Your task to perform on an android device: open app "Gboard" (install if not already installed) Image 0: 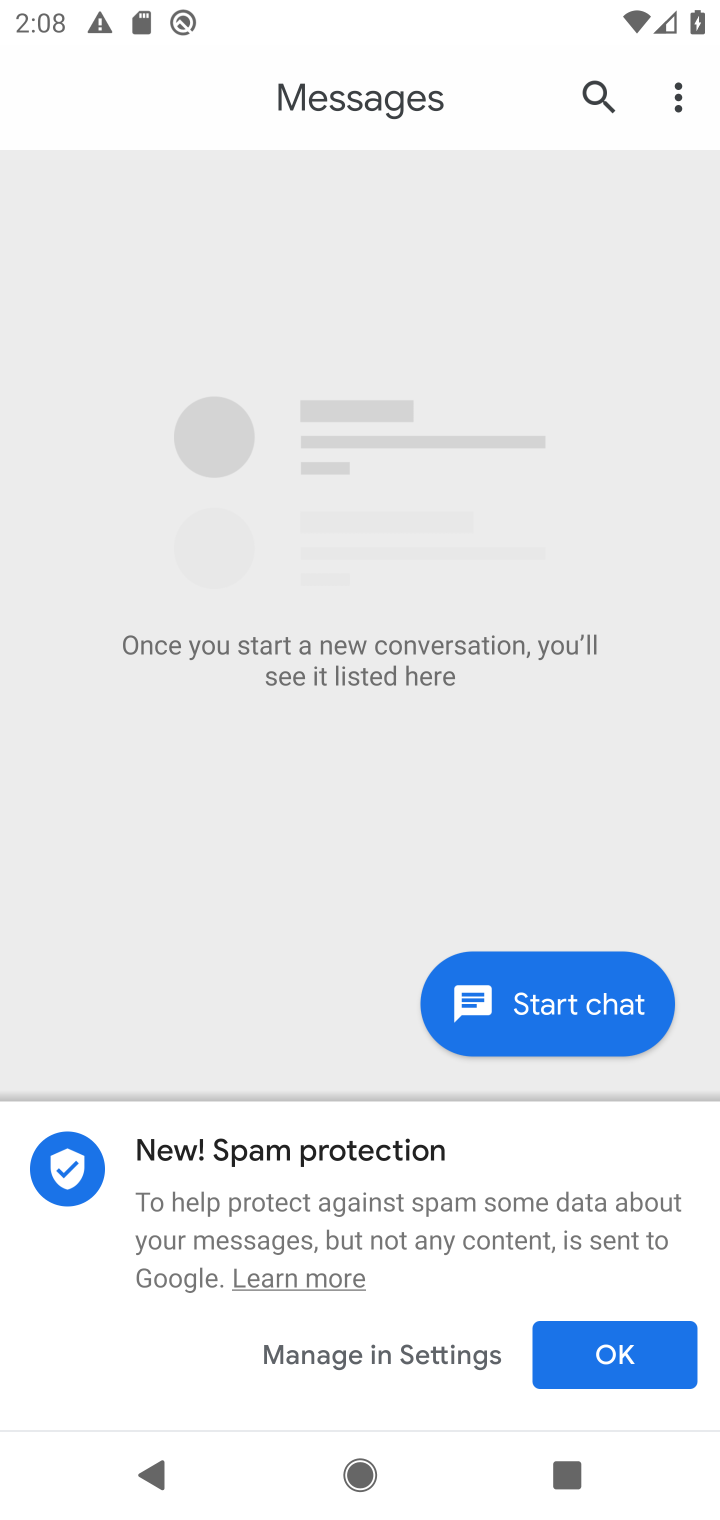
Step 0: press home button
Your task to perform on an android device: open app "Gboard" (install if not already installed) Image 1: 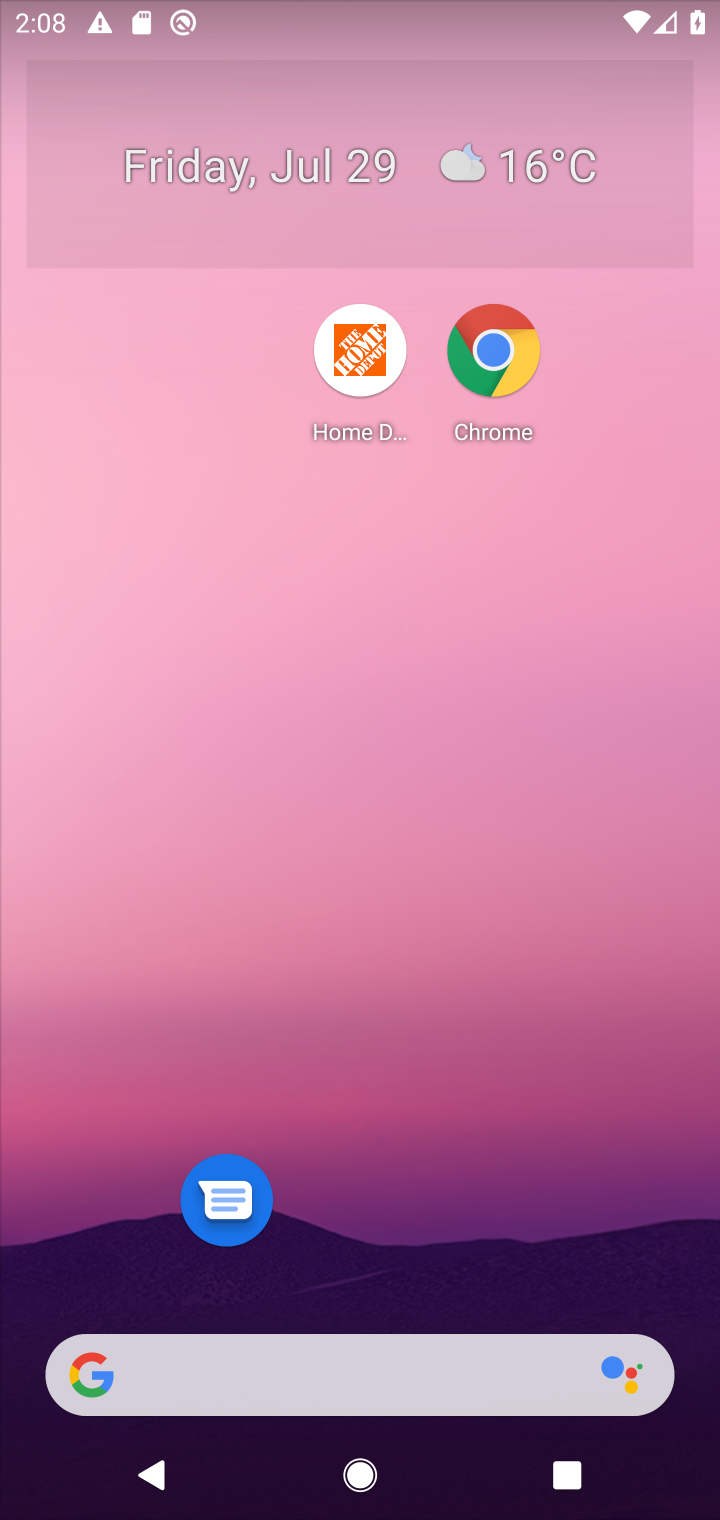
Step 1: drag from (468, 1223) to (508, 127)
Your task to perform on an android device: open app "Gboard" (install if not already installed) Image 2: 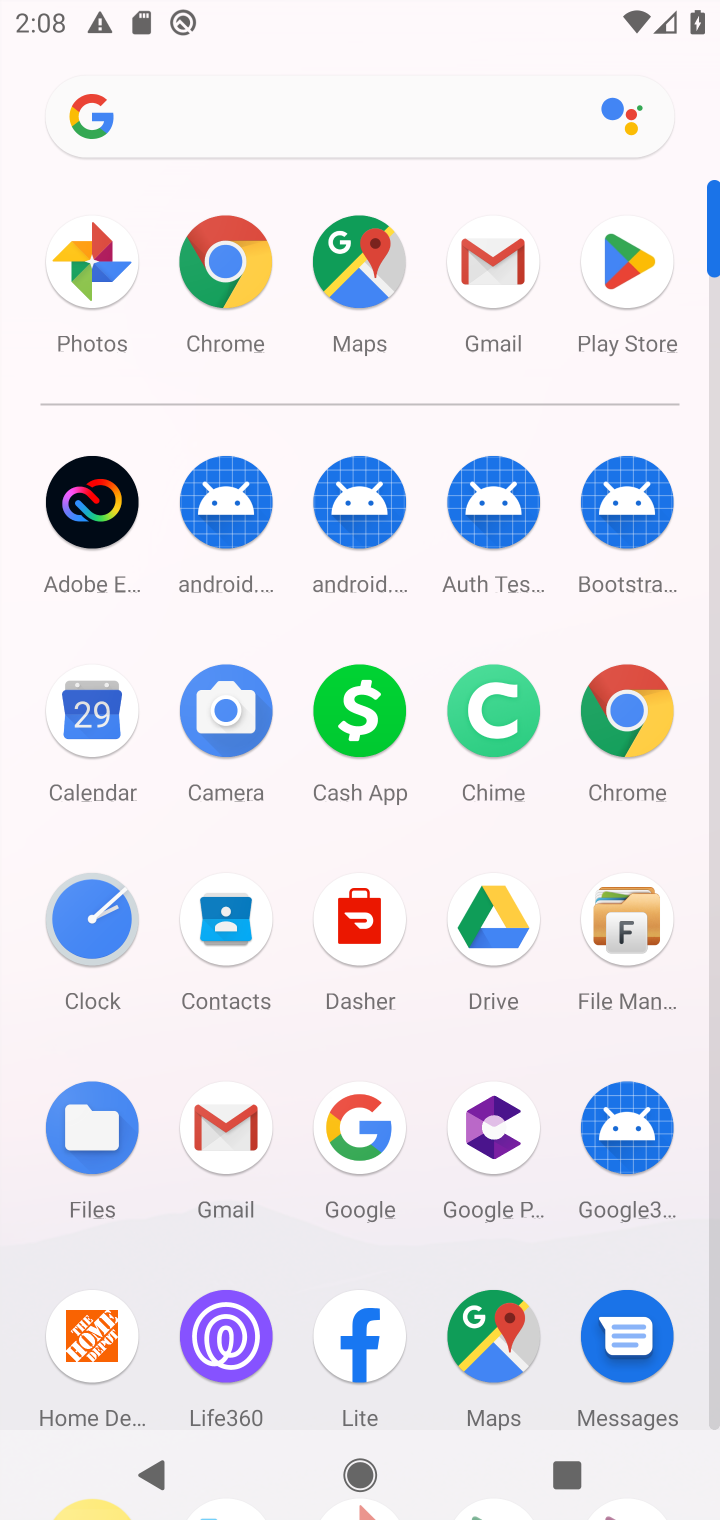
Step 2: click (614, 254)
Your task to perform on an android device: open app "Gboard" (install if not already installed) Image 3: 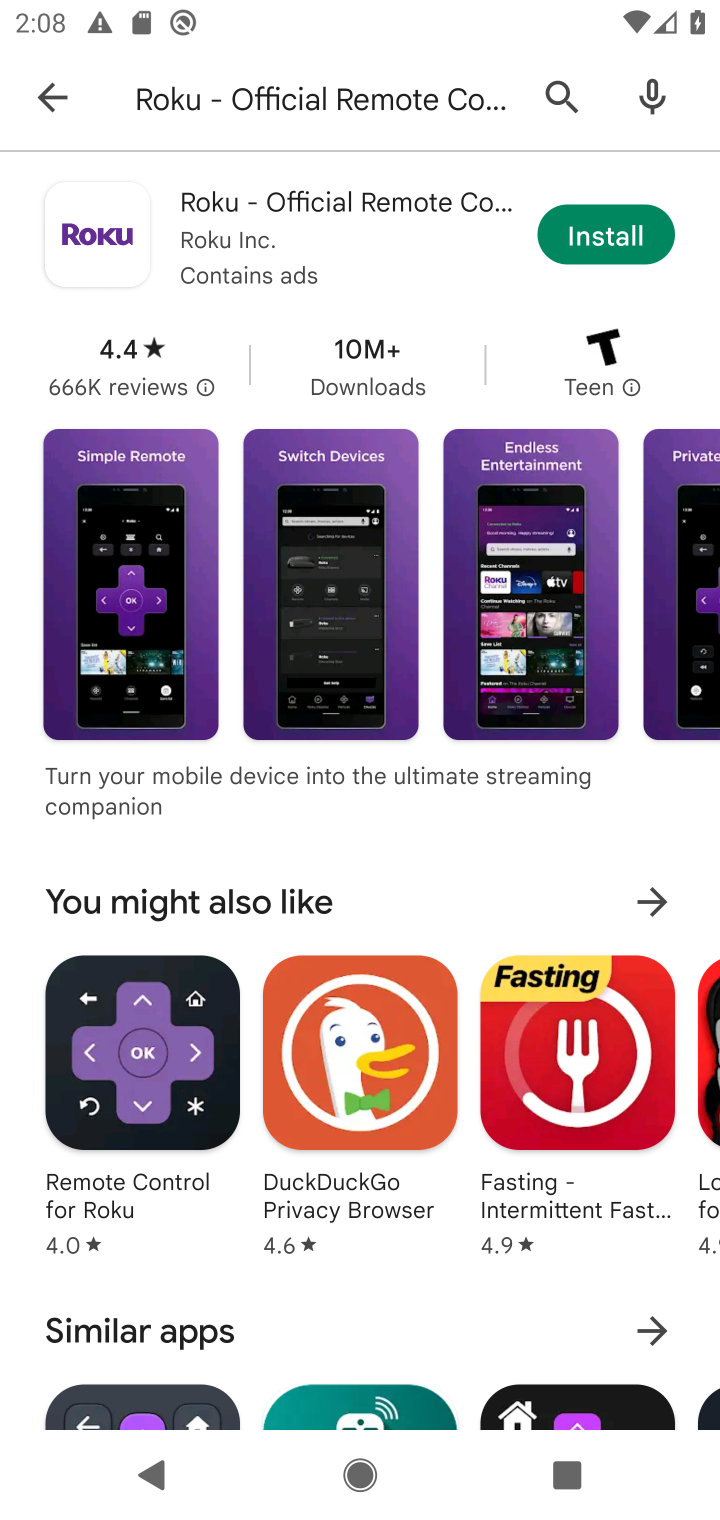
Step 3: click (409, 111)
Your task to perform on an android device: open app "Gboard" (install if not already installed) Image 4: 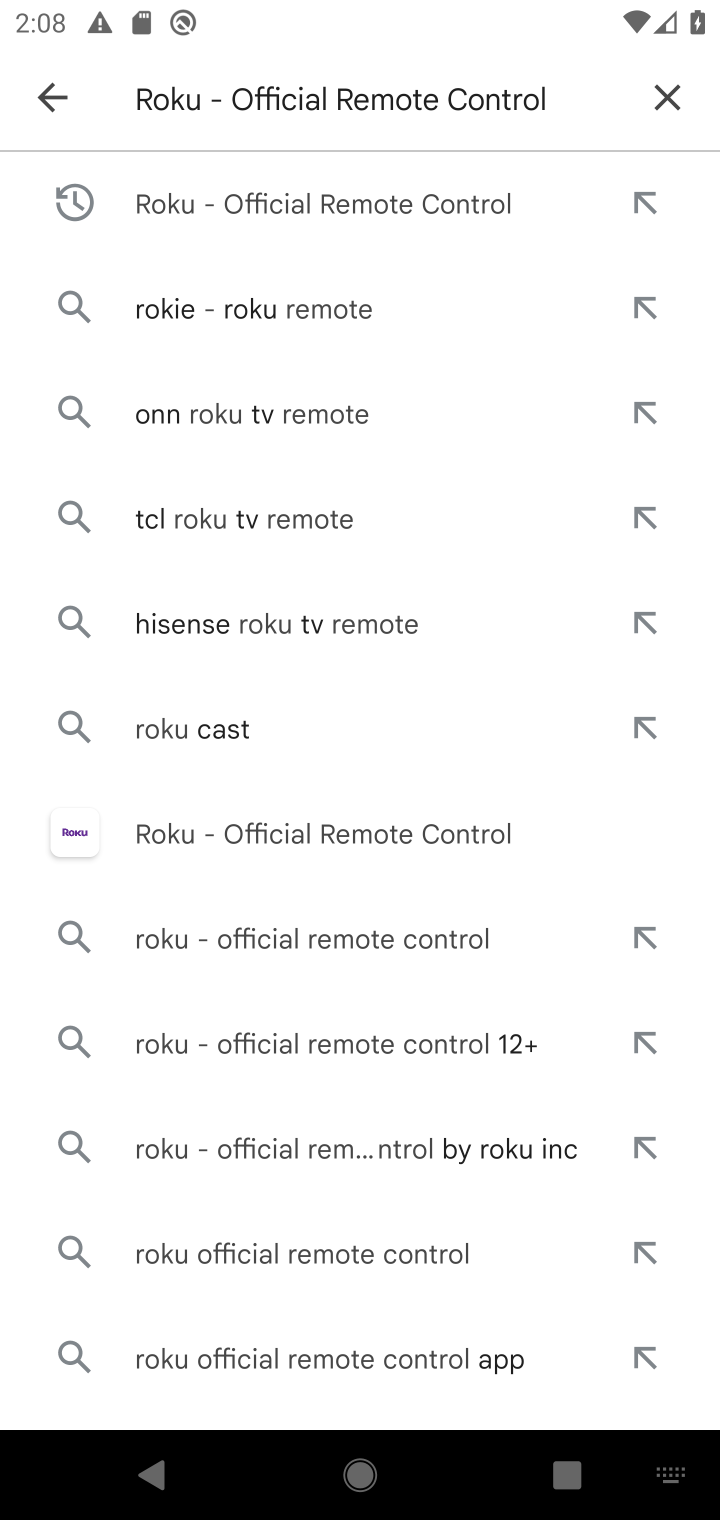
Step 4: click (662, 80)
Your task to perform on an android device: open app "Gboard" (install if not already installed) Image 5: 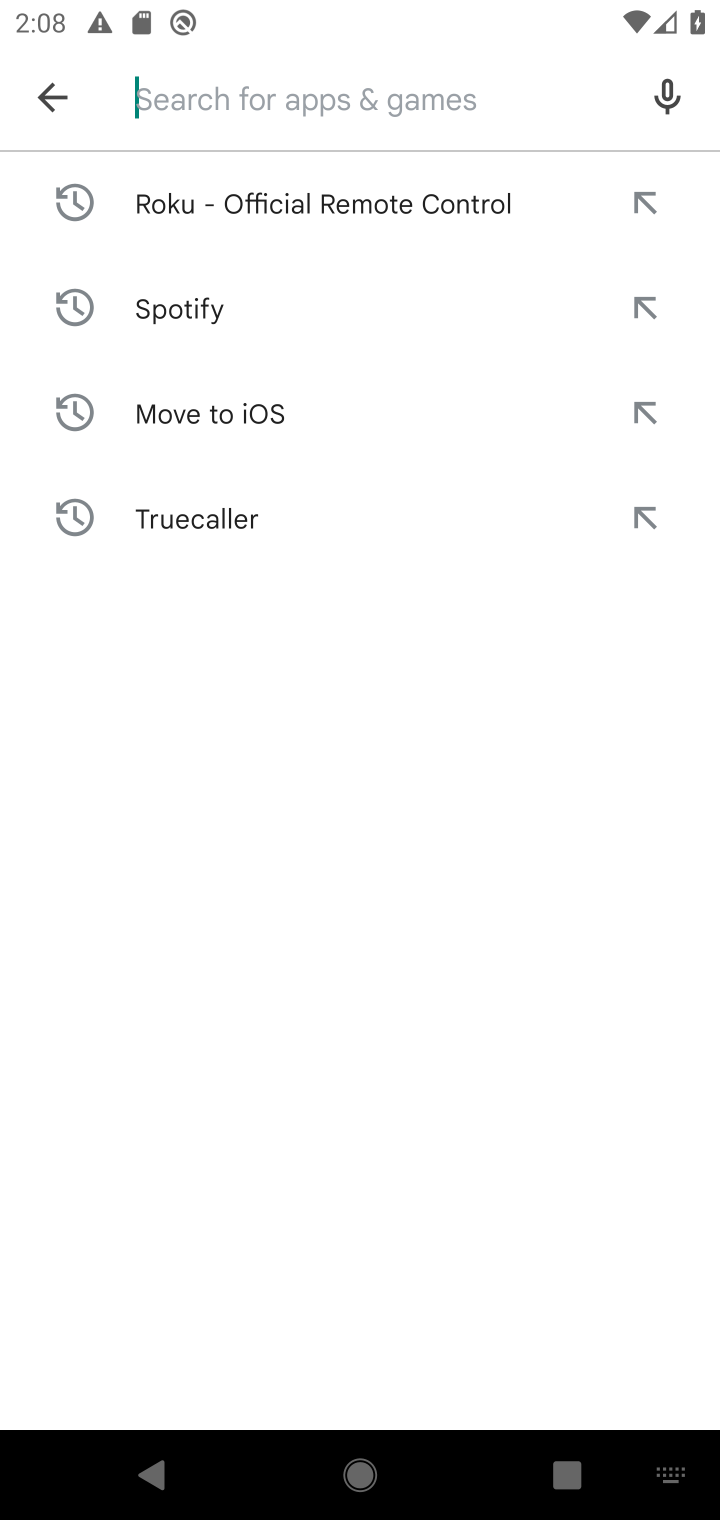
Step 5: type "Gboard"
Your task to perform on an android device: open app "Gboard" (install if not already installed) Image 6: 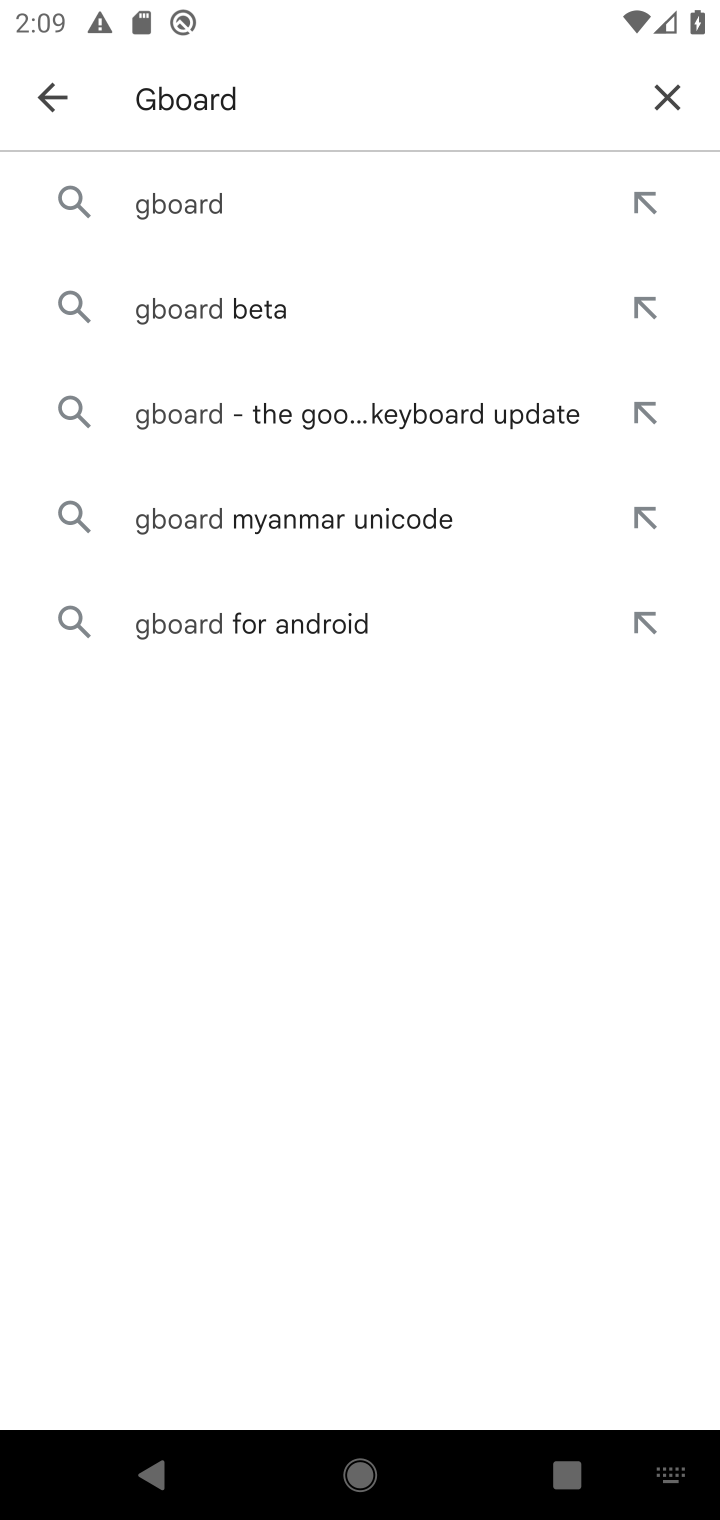
Step 6: press enter
Your task to perform on an android device: open app "Gboard" (install if not already installed) Image 7: 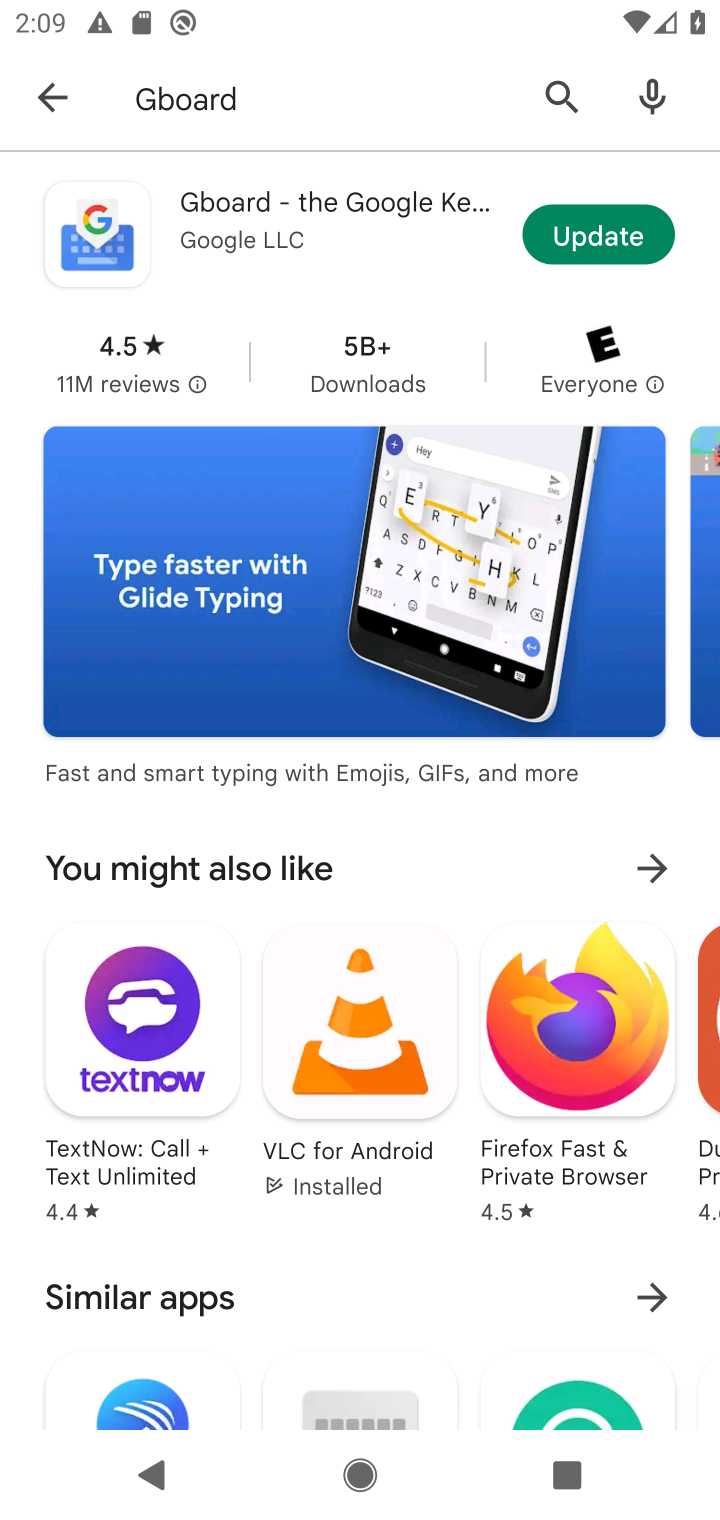
Step 7: click (418, 223)
Your task to perform on an android device: open app "Gboard" (install if not already installed) Image 8: 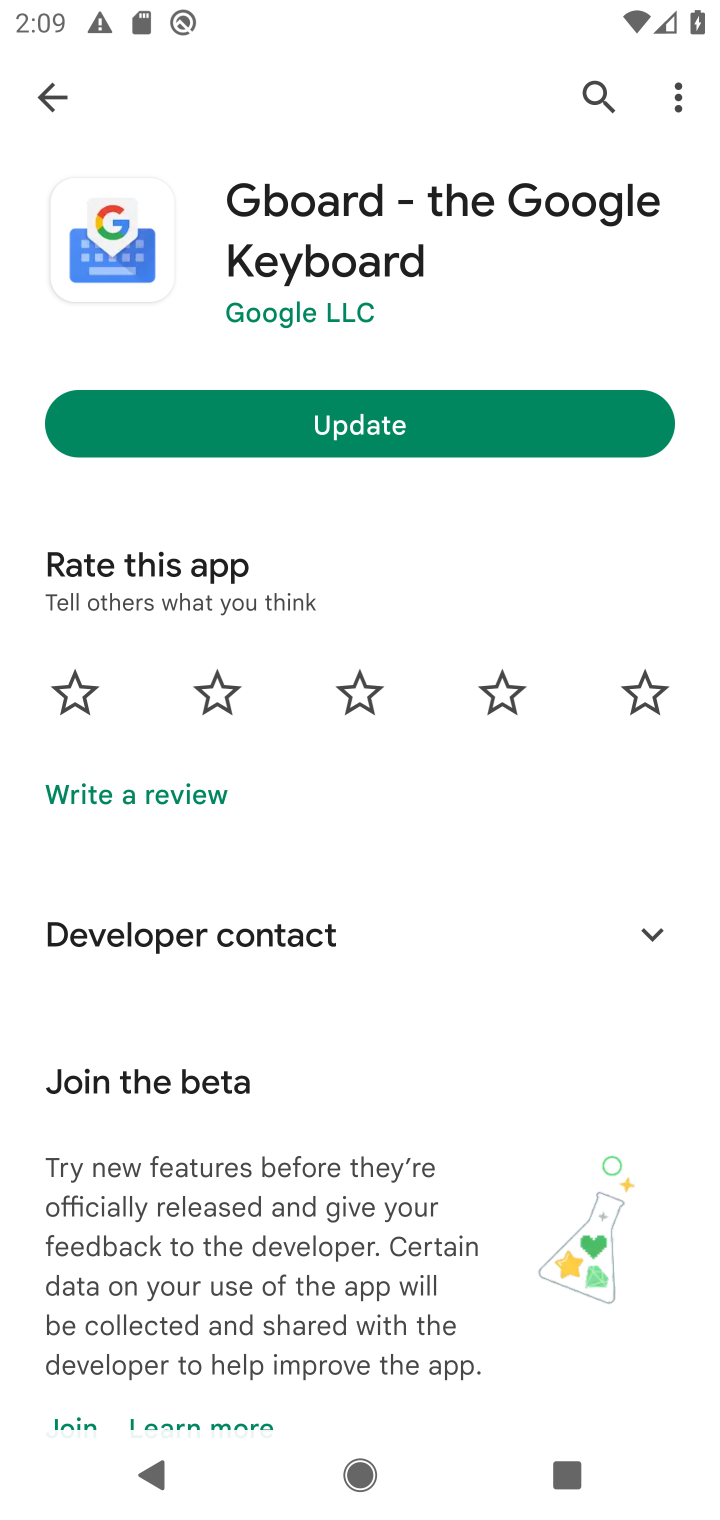
Step 8: click (436, 415)
Your task to perform on an android device: open app "Gboard" (install if not already installed) Image 9: 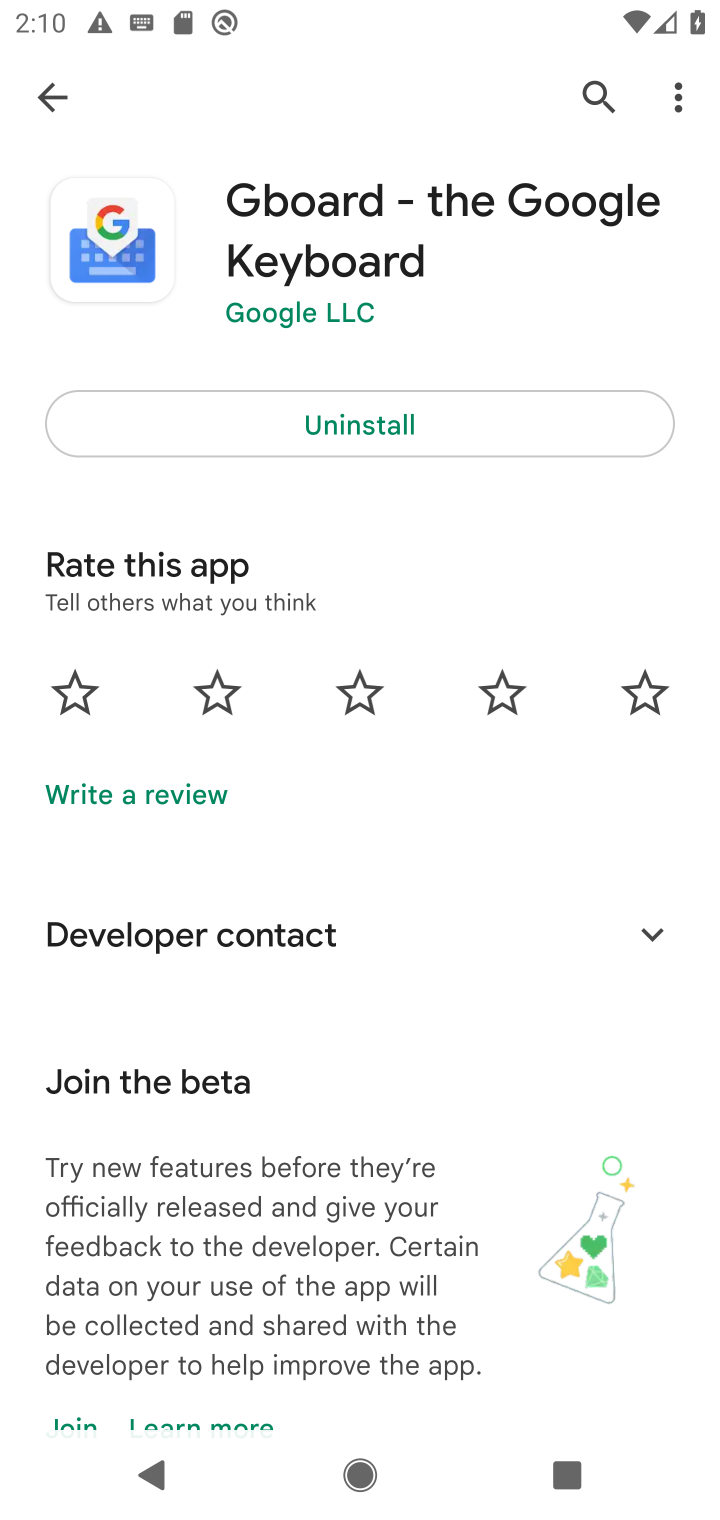
Step 9: task complete